Your task to perform on an android device: empty trash in google photos Image 0: 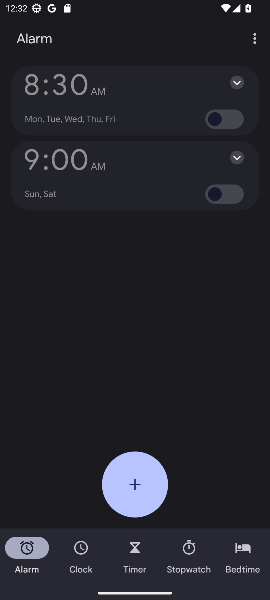
Step 0: press home button
Your task to perform on an android device: empty trash in google photos Image 1: 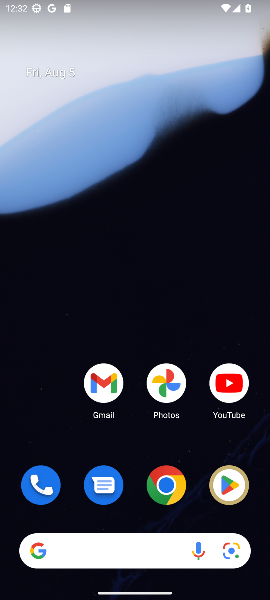
Step 1: click (162, 384)
Your task to perform on an android device: empty trash in google photos Image 2: 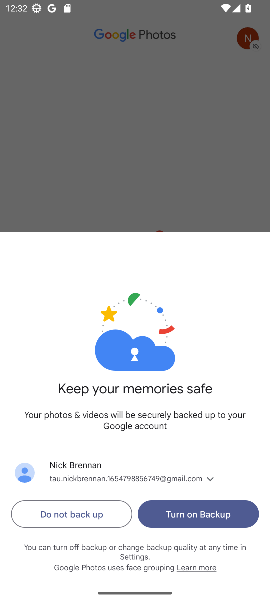
Step 2: click (170, 511)
Your task to perform on an android device: empty trash in google photos Image 3: 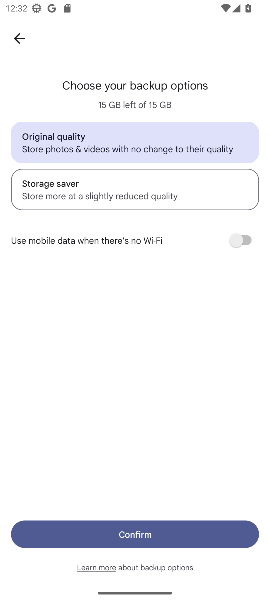
Step 3: click (131, 524)
Your task to perform on an android device: empty trash in google photos Image 4: 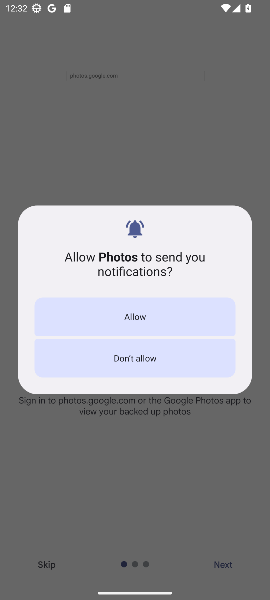
Step 4: click (126, 312)
Your task to perform on an android device: empty trash in google photos Image 5: 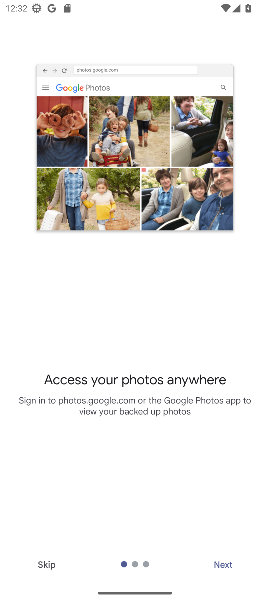
Step 5: click (220, 558)
Your task to perform on an android device: empty trash in google photos Image 6: 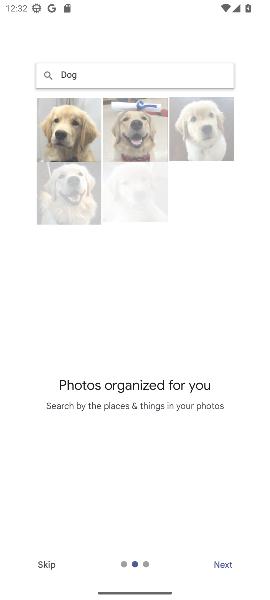
Step 6: click (220, 558)
Your task to perform on an android device: empty trash in google photos Image 7: 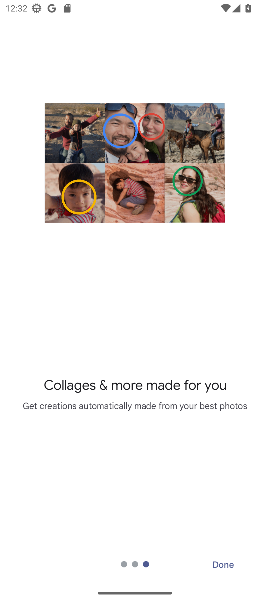
Step 7: click (220, 567)
Your task to perform on an android device: empty trash in google photos Image 8: 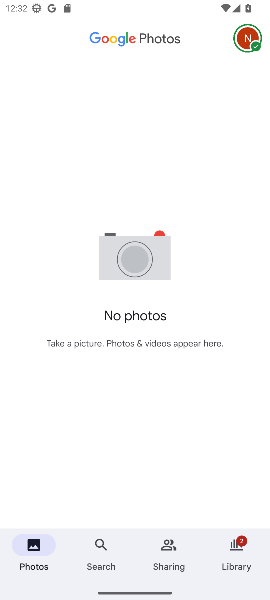
Step 8: click (237, 551)
Your task to perform on an android device: empty trash in google photos Image 9: 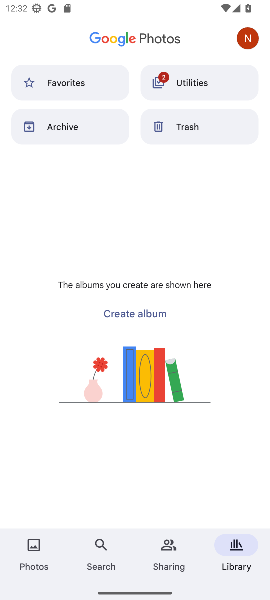
Step 9: click (175, 124)
Your task to perform on an android device: empty trash in google photos Image 10: 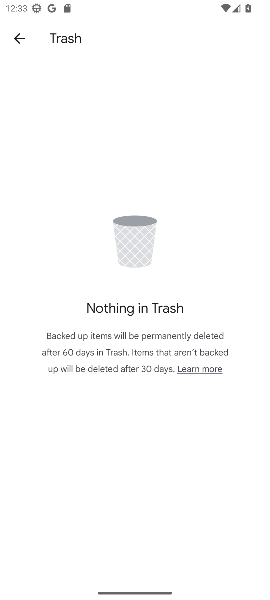
Step 10: task complete